Your task to perform on an android device: Open calendar and show me the third week of next month Image 0: 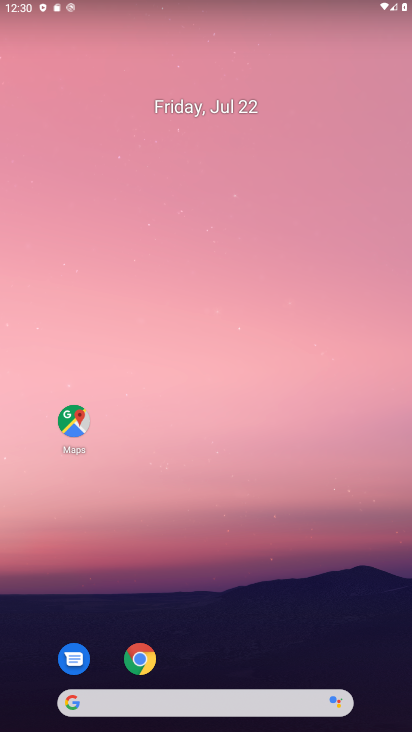
Step 0: drag from (218, 669) to (204, 421)
Your task to perform on an android device: Open calendar and show me the third week of next month Image 1: 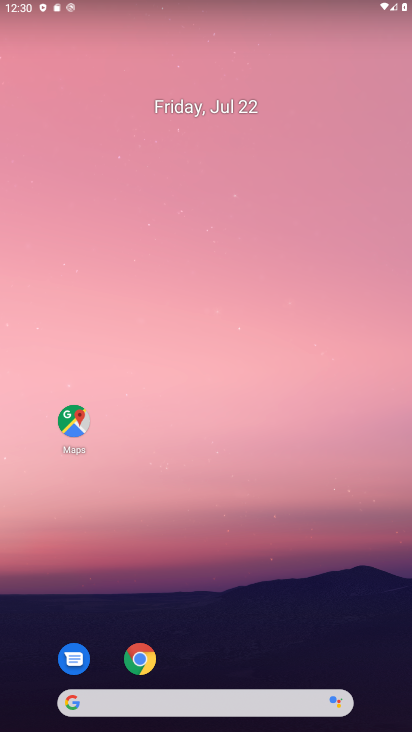
Step 1: task complete